Your task to perform on an android device: Open the phone app and click the voicemail tab. Image 0: 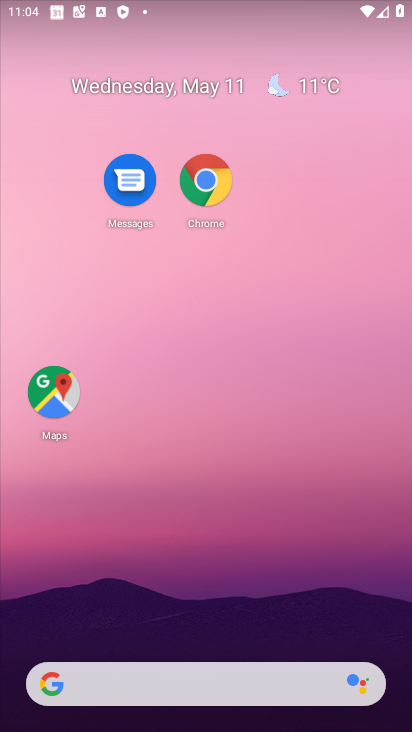
Step 0: drag from (302, 609) to (280, 27)
Your task to perform on an android device: Open the phone app and click the voicemail tab. Image 1: 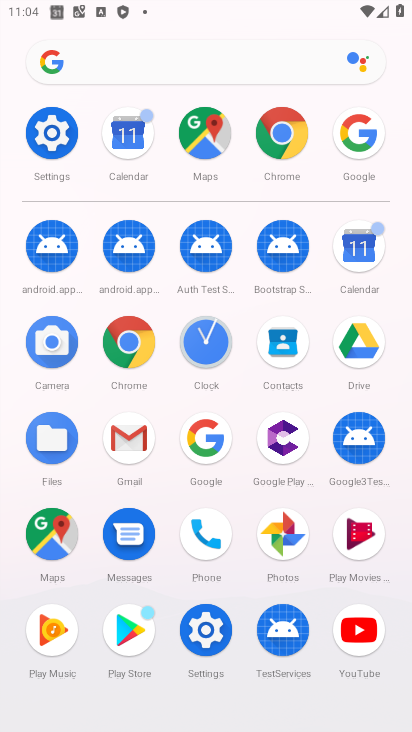
Step 1: click (218, 556)
Your task to perform on an android device: Open the phone app and click the voicemail tab. Image 2: 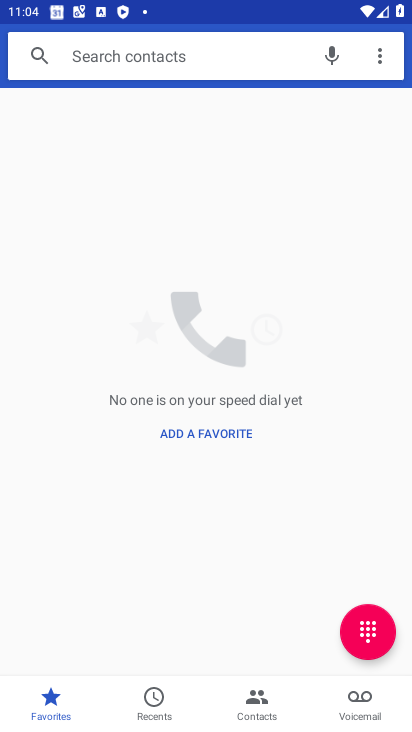
Step 2: click (343, 717)
Your task to perform on an android device: Open the phone app and click the voicemail tab. Image 3: 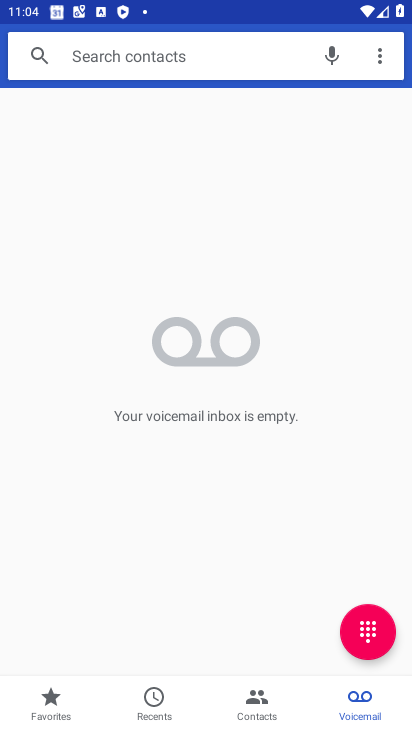
Step 3: task complete